Your task to perform on an android device: Open the web browser Image 0: 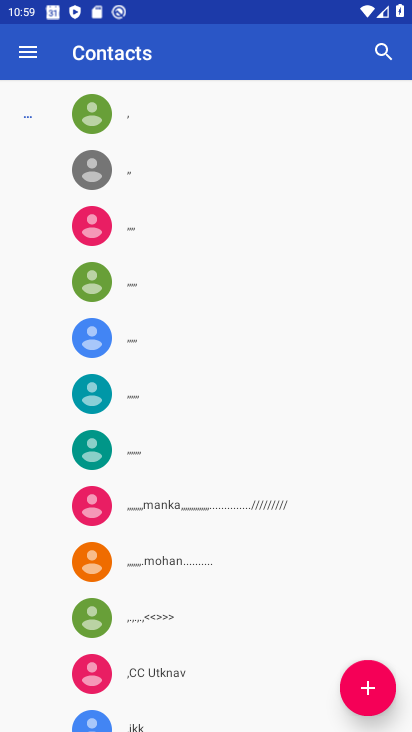
Step 0: press home button
Your task to perform on an android device: Open the web browser Image 1: 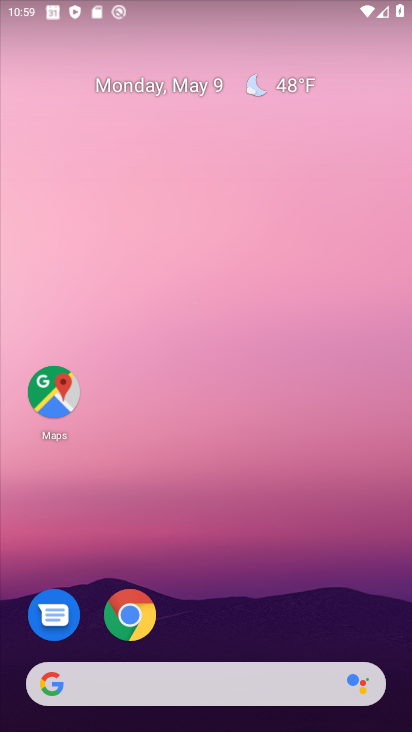
Step 1: drag from (227, 435) to (209, 105)
Your task to perform on an android device: Open the web browser Image 2: 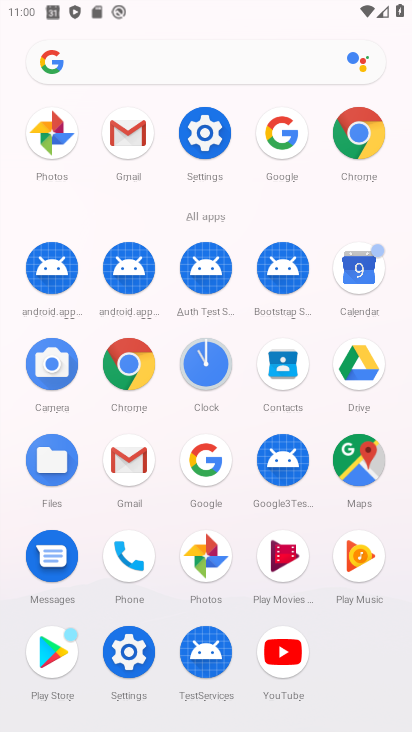
Step 2: click (127, 376)
Your task to perform on an android device: Open the web browser Image 3: 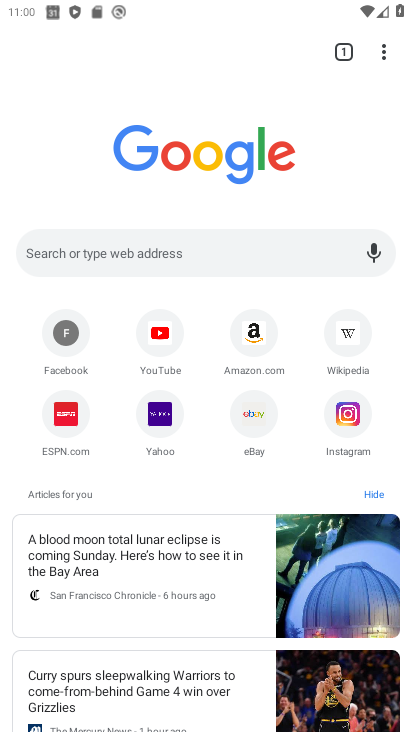
Step 3: task complete